Your task to perform on an android device: show emergency info Image 0: 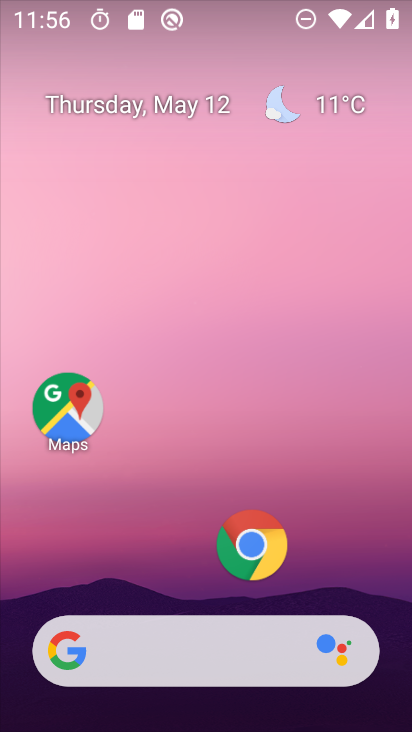
Step 0: click (221, 120)
Your task to perform on an android device: show emergency info Image 1: 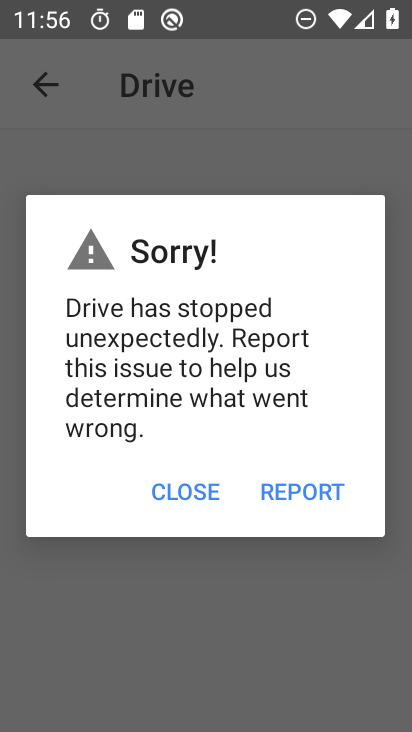
Step 1: press home button
Your task to perform on an android device: show emergency info Image 2: 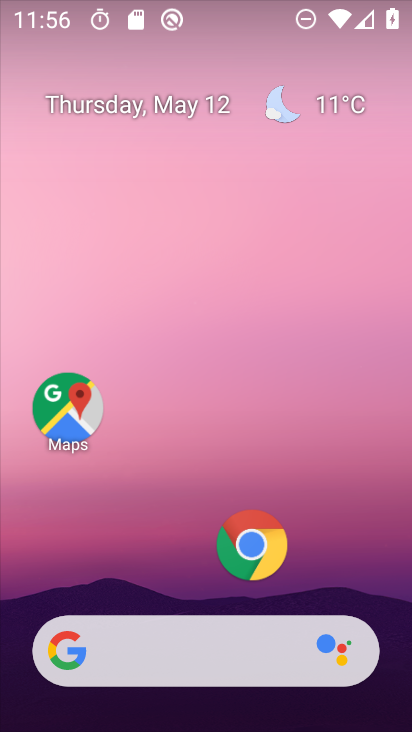
Step 2: drag from (196, 591) to (191, 0)
Your task to perform on an android device: show emergency info Image 3: 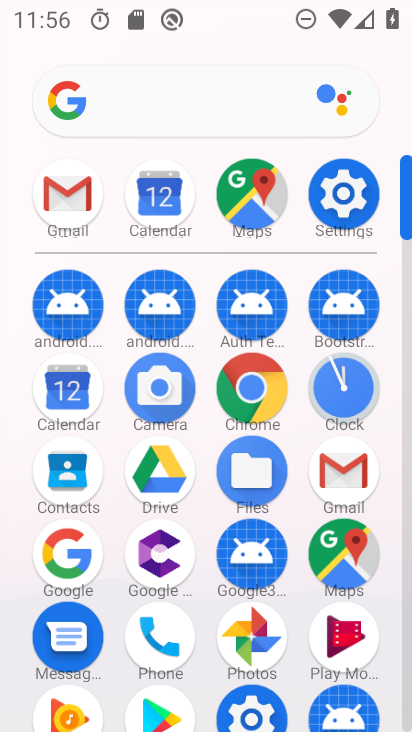
Step 3: click (339, 186)
Your task to perform on an android device: show emergency info Image 4: 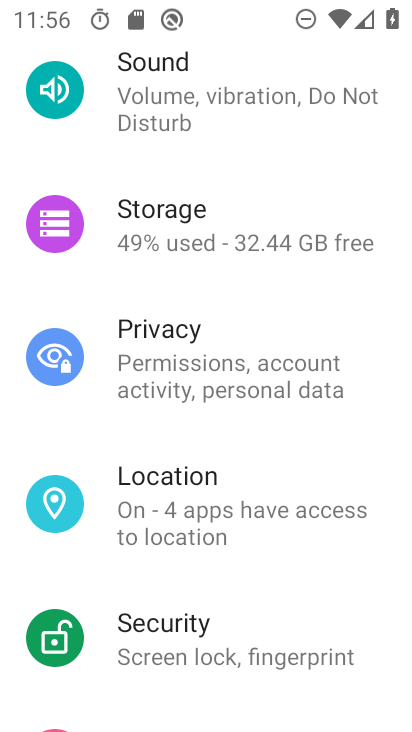
Step 4: drag from (222, 674) to (254, 55)
Your task to perform on an android device: show emergency info Image 5: 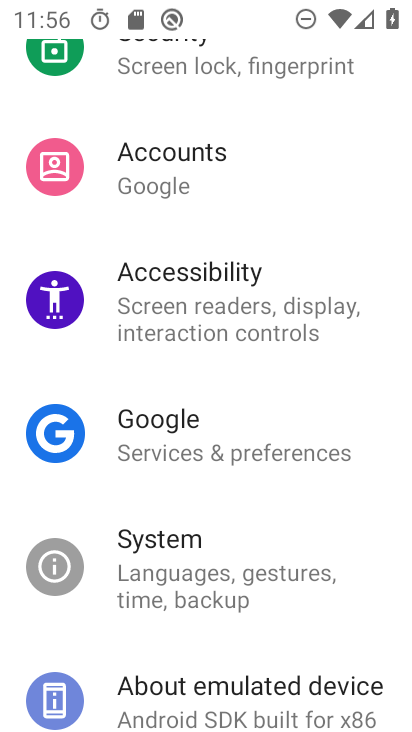
Step 5: click (95, 699)
Your task to perform on an android device: show emergency info Image 6: 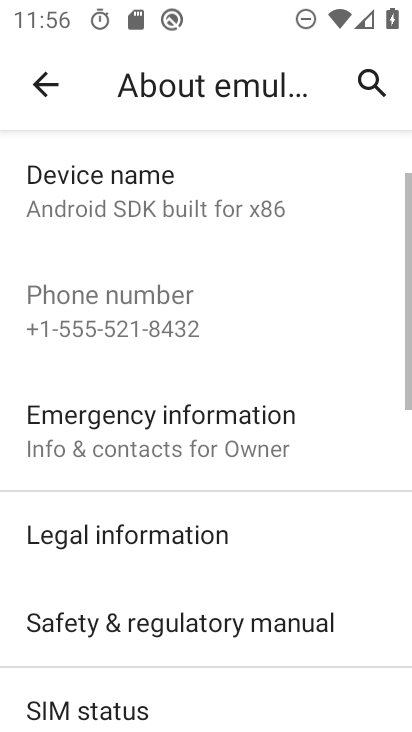
Step 6: click (299, 440)
Your task to perform on an android device: show emergency info Image 7: 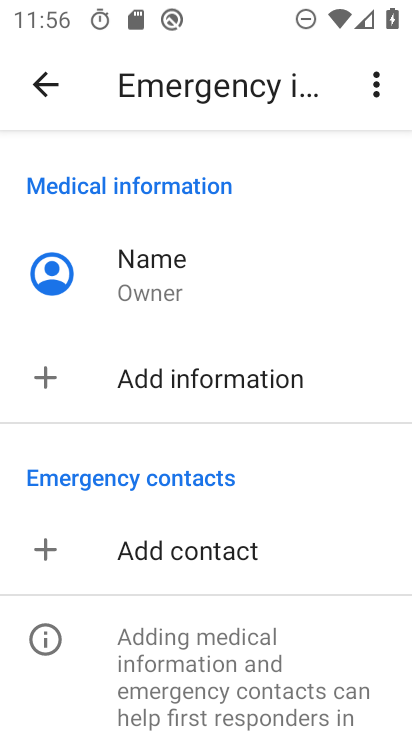
Step 7: task complete